Your task to perform on an android device: change the clock display to digital Image 0: 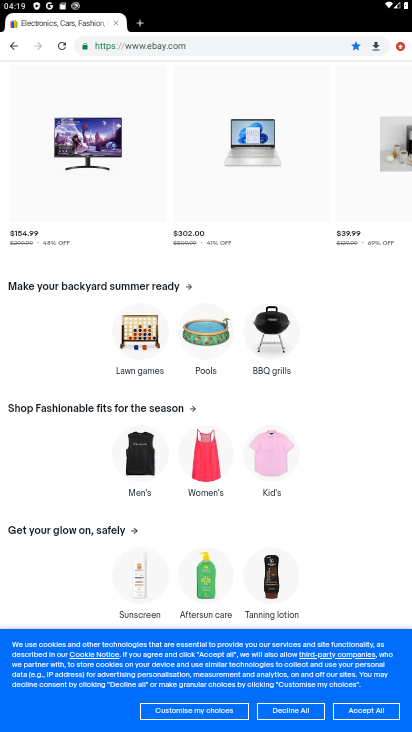
Step 0: press home button
Your task to perform on an android device: change the clock display to digital Image 1: 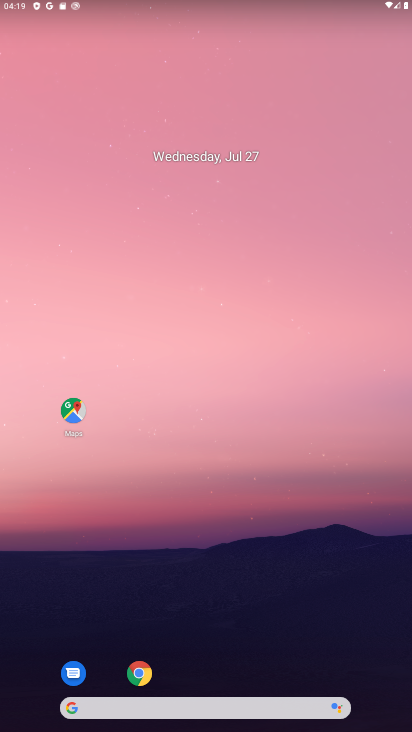
Step 1: drag from (386, 686) to (308, 184)
Your task to perform on an android device: change the clock display to digital Image 2: 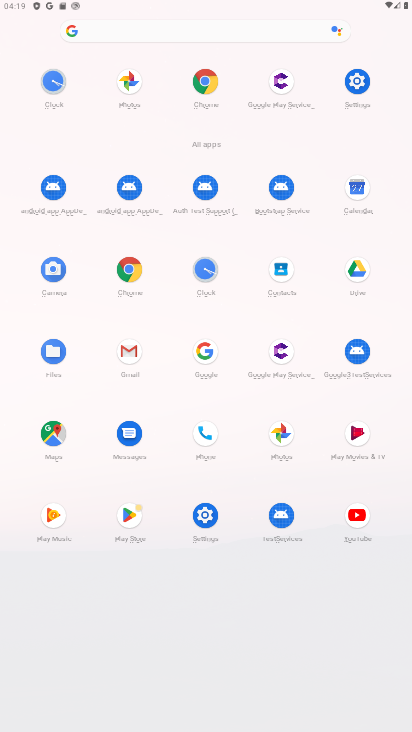
Step 2: click (204, 268)
Your task to perform on an android device: change the clock display to digital Image 3: 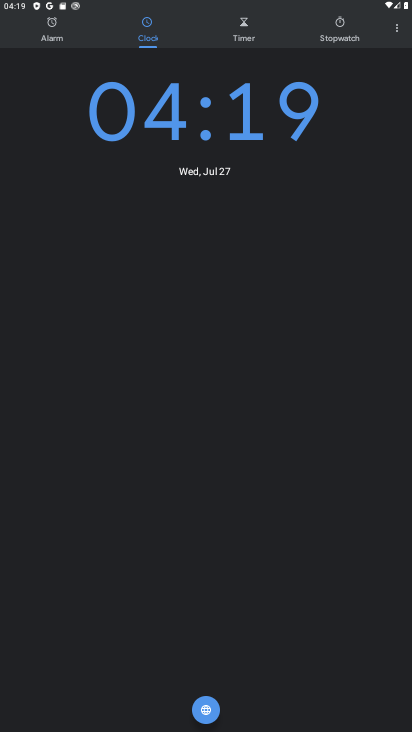
Step 3: click (398, 33)
Your task to perform on an android device: change the clock display to digital Image 4: 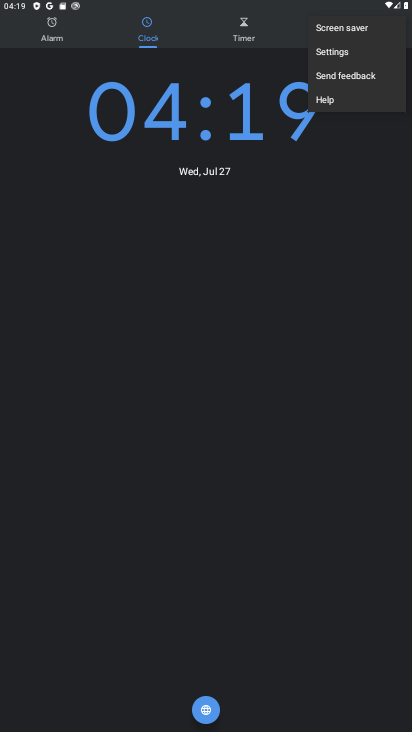
Step 4: click (338, 55)
Your task to perform on an android device: change the clock display to digital Image 5: 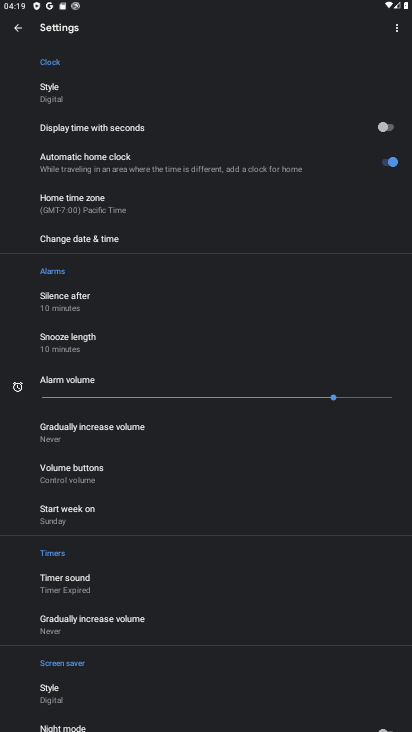
Step 5: task complete